Your task to perform on an android device: find photos in the google photos app Image 0: 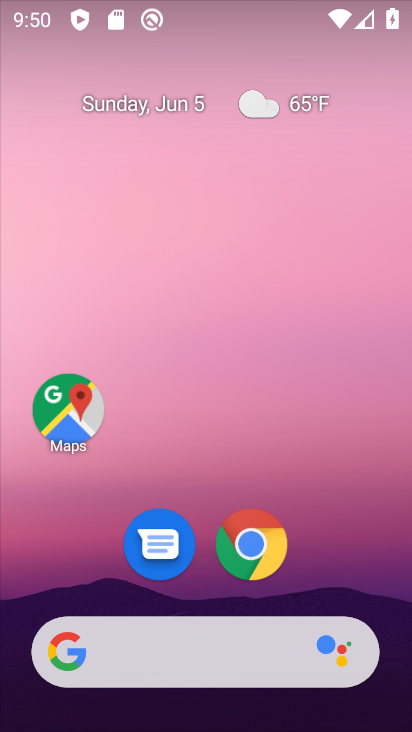
Step 0: task complete